Your task to perform on an android device: turn off sleep mode Image 0: 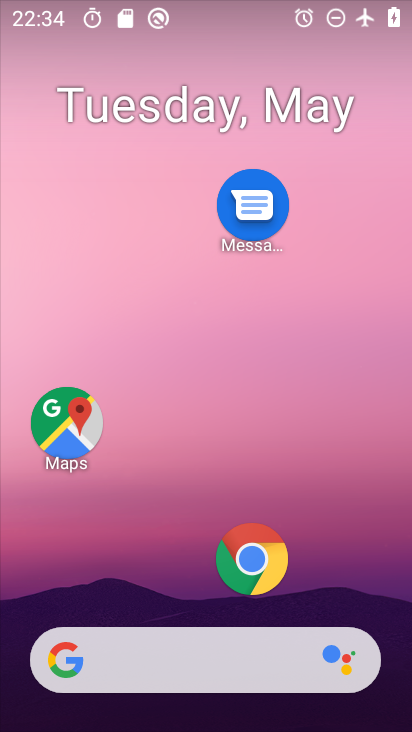
Step 0: drag from (182, 604) to (178, 147)
Your task to perform on an android device: turn off sleep mode Image 1: 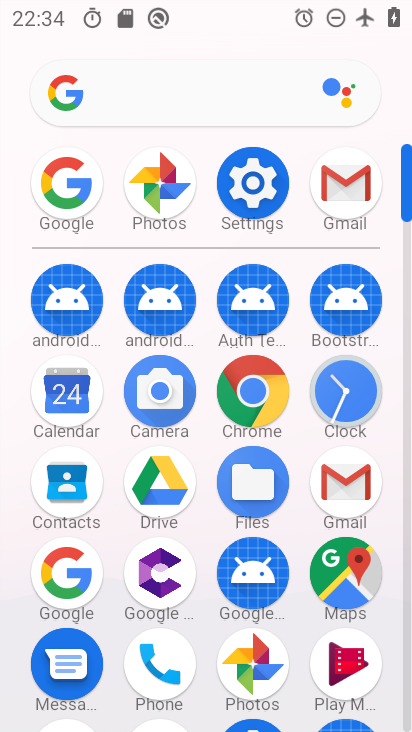
Step 1: click (250, 194)
Your task to perform on an android device: turn off sleep mode Image 2: 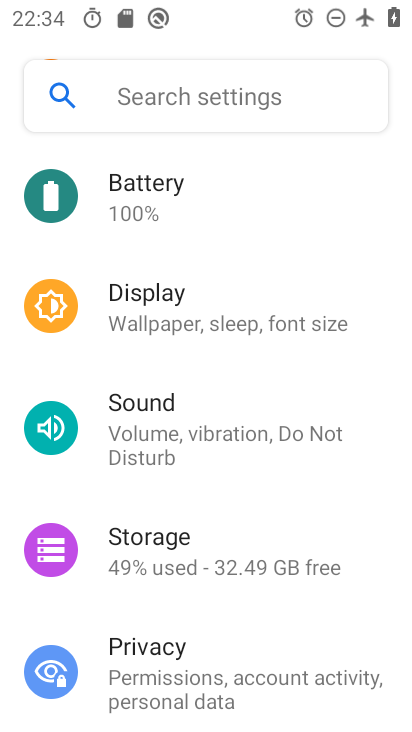
Step 2: click (186, 322)
Your task to perform on an android device: turn off sleep mode Image 3: 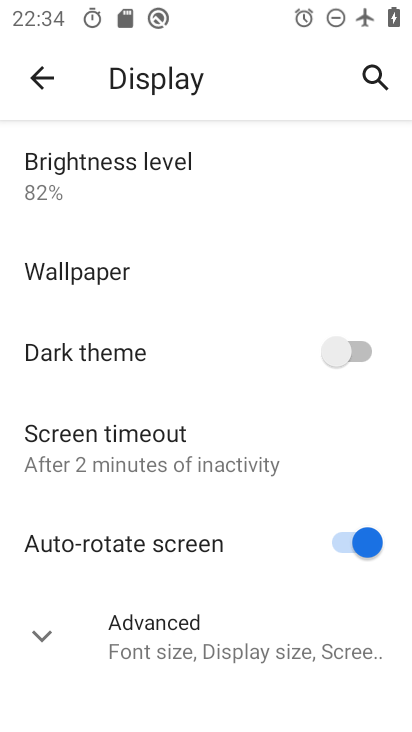
Step 3: click (163, 435)
Your task to perform on an android device: turn off sleep mode Image 4: 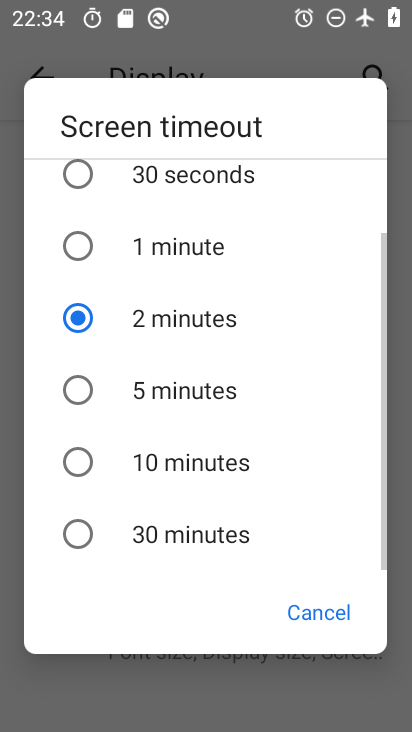
Step 4: click (163, 435)
Your task to perform on an android device: turn off sleep mode Image 5: 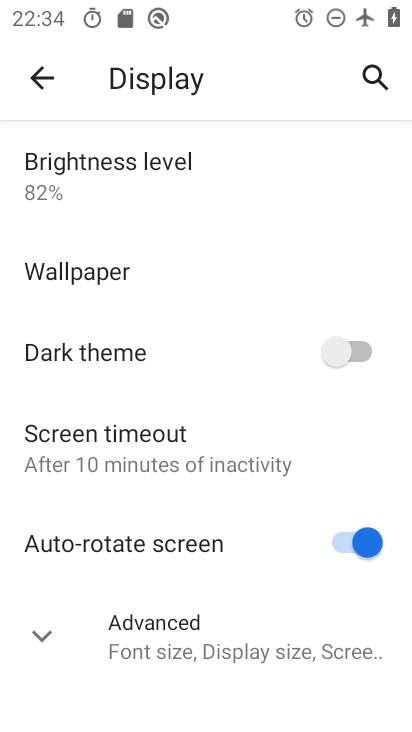
Step 5: task complete